Your task to perform on an android device: Go to eBay Image 0: 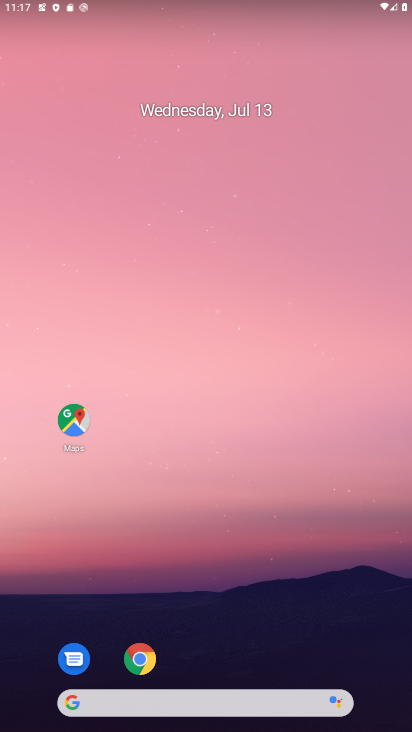
Step 0: drag from (218, 633) to (223, 59)
Your task to perform on an android device: Go to eBay Image 1: 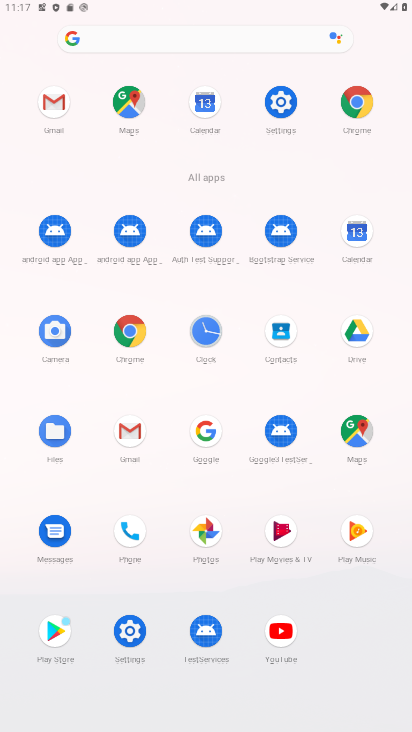
Step 1: click (346, 101)
Your task to perform on an android device: Go to eBay Image 2: 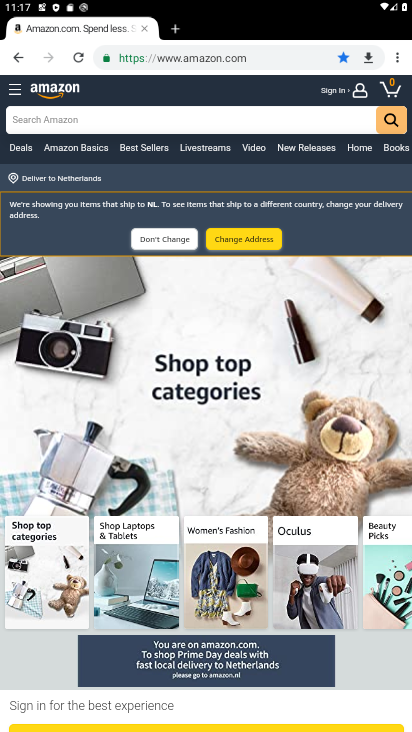
Step 2: click (395, 61)
Your task to perform on an android device: Go to eBay Image 3: 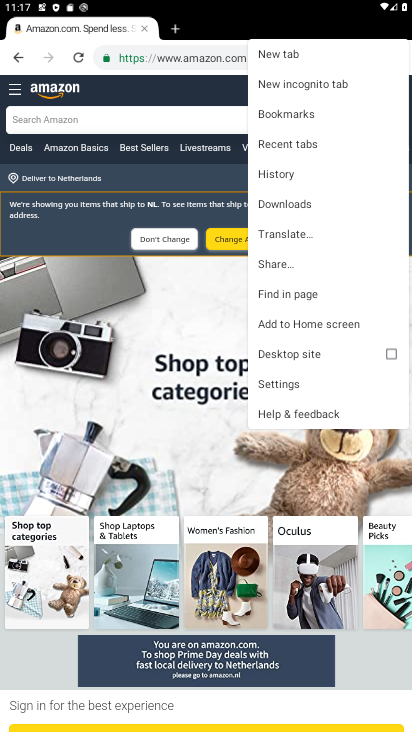
Step 3: click (297, 55)
Your task to perform on an android device: Go to eBay Image 4: 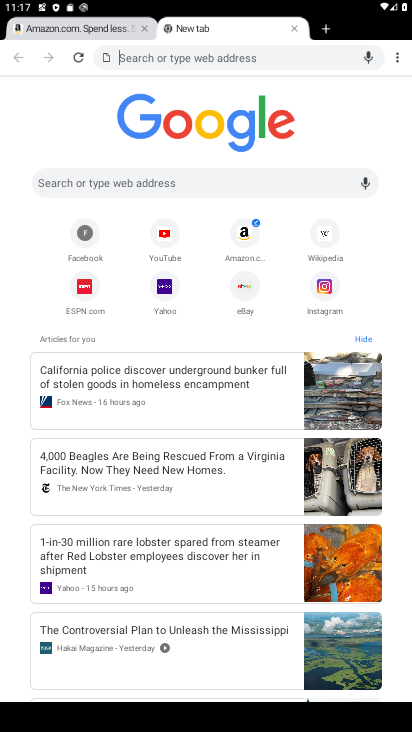
Step 4: click (236, 283)
Your task to perform on an android device: Go to eBay Image 5: 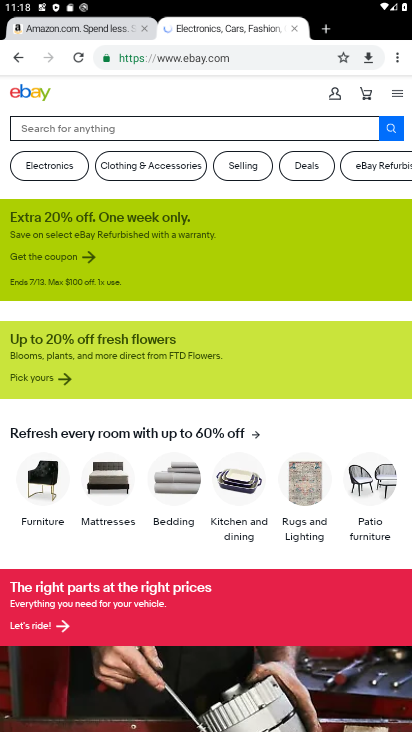
Step 5: task complete